Your task to perform on an android device: Open calendar and show me the fourth week of next month Image 0: 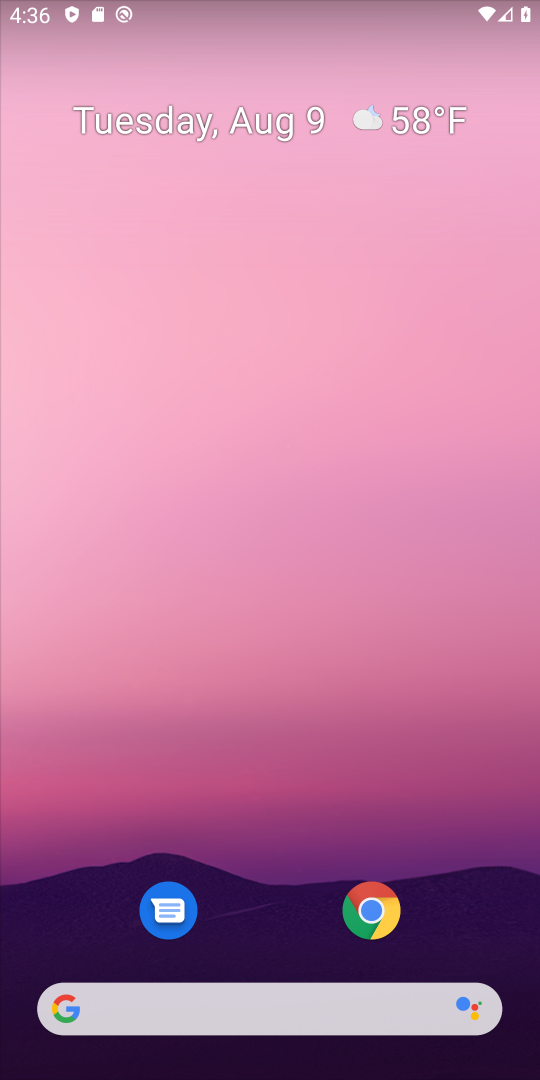
Step 0: drag from (219, 115) to (220, 363)
Your task to perform on an android device: Open calendar and show me the fourth week of next month Image 1: 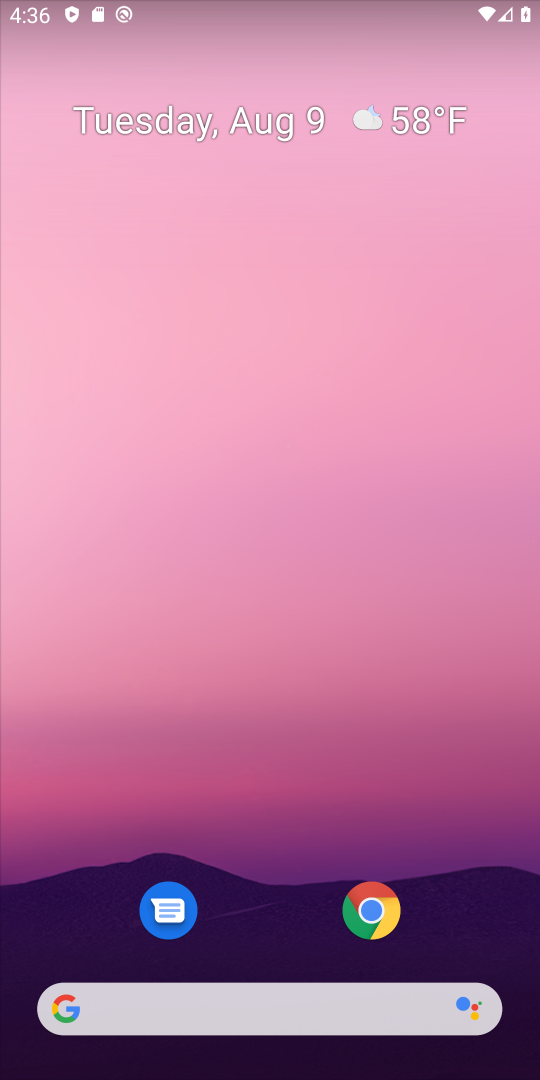
Step 1: drag from (276, 842) to (254, 254)
Your task to perform on an android device: Open calendar and show me the fourth week of next month Image 2: 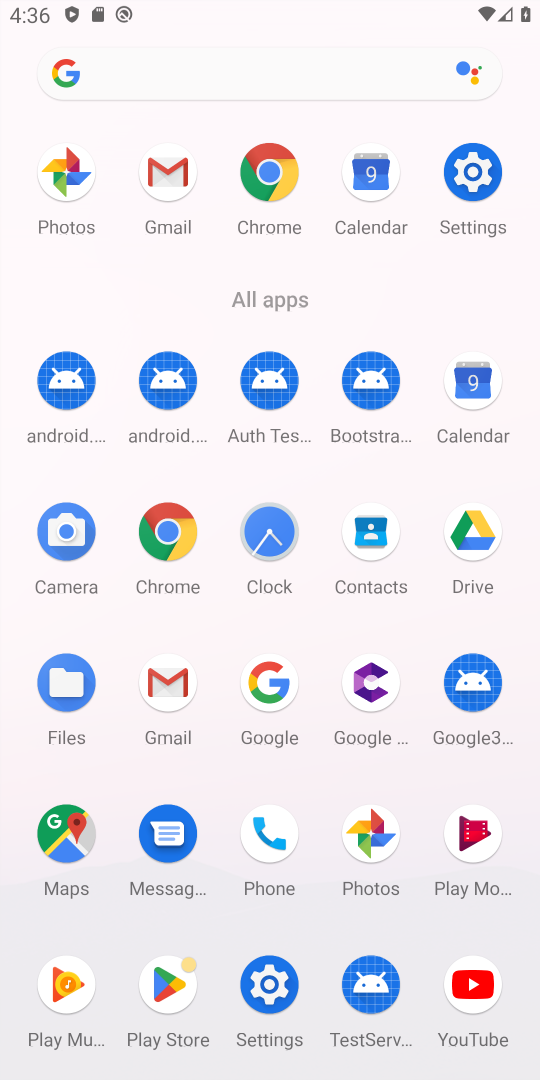
Step 2: click (472, 373)
Your task to perform on an android device: Open calendar and show me the fourth week of next month Image 3: 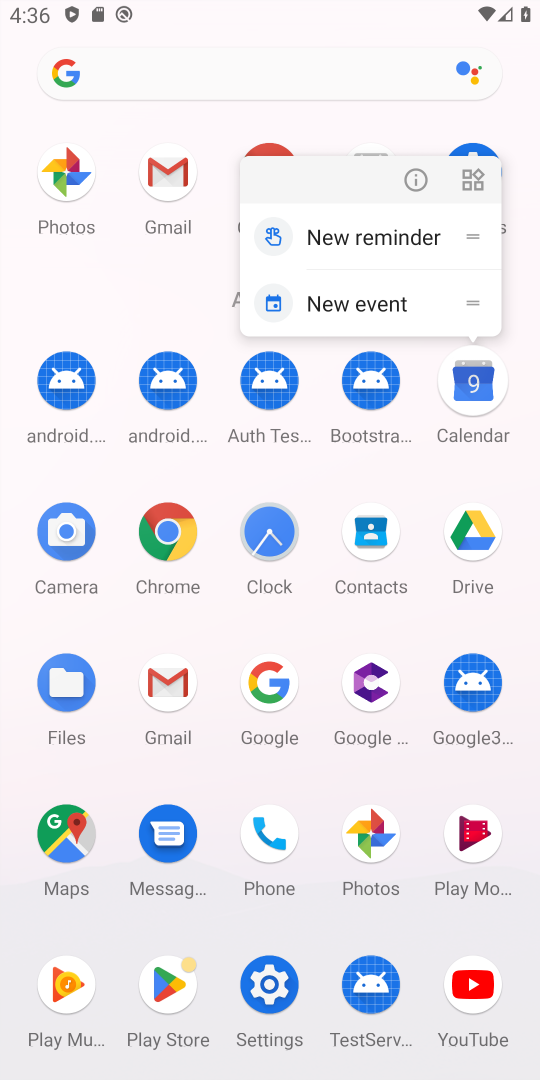
Step 3: click (476, 379)
Your task to perform on an android device: Open calendar and show me the fourth week of next month Image 4: 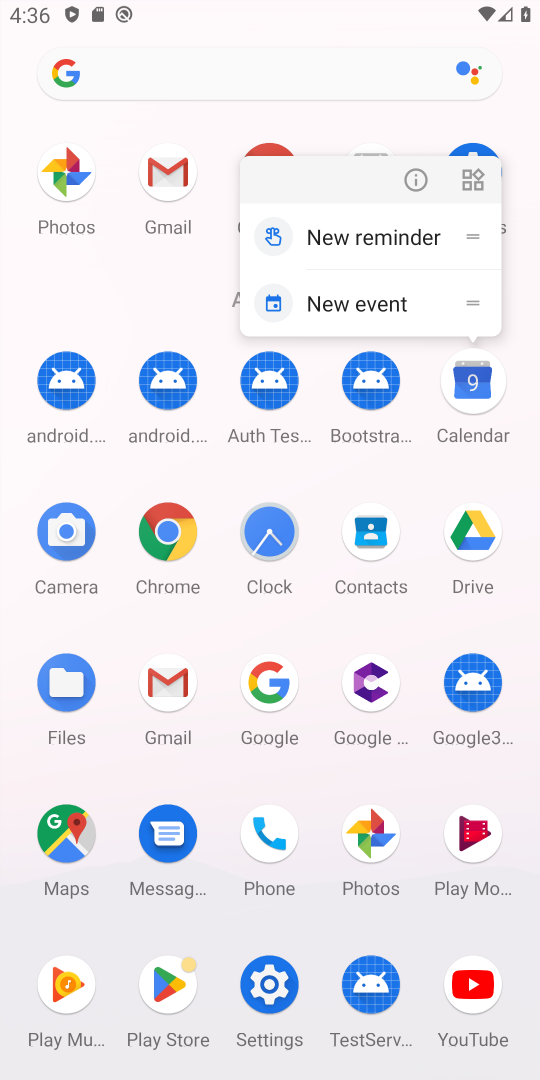
Step 4: click (476, 380)
Your task to perform on an android device: Open calendar and show me the fourth week of next month Image 5: 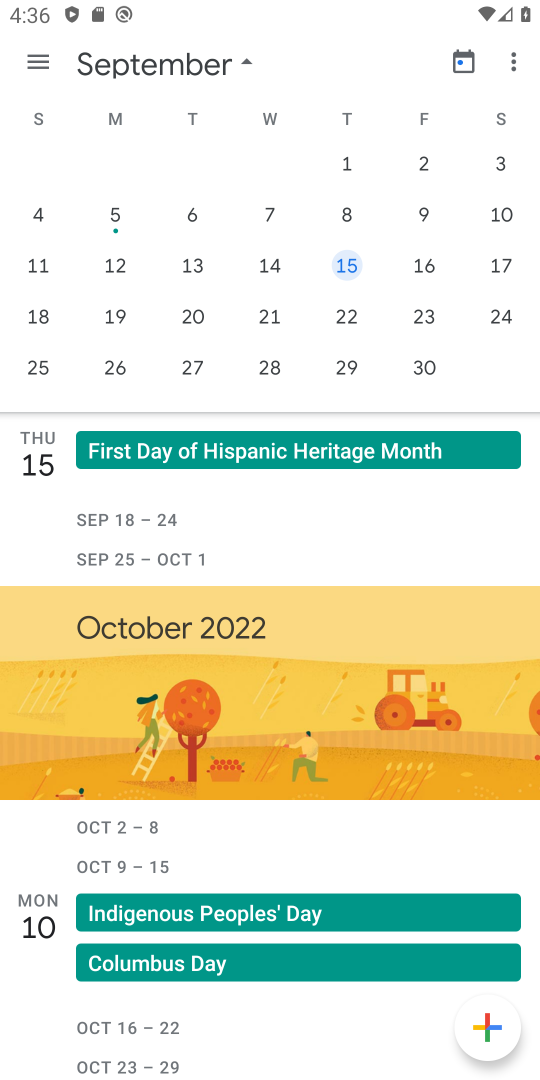
Step 5: click (348, 309)
Your task to perform on an android device: Open calendar and show me the fourth week of next month Image 6: 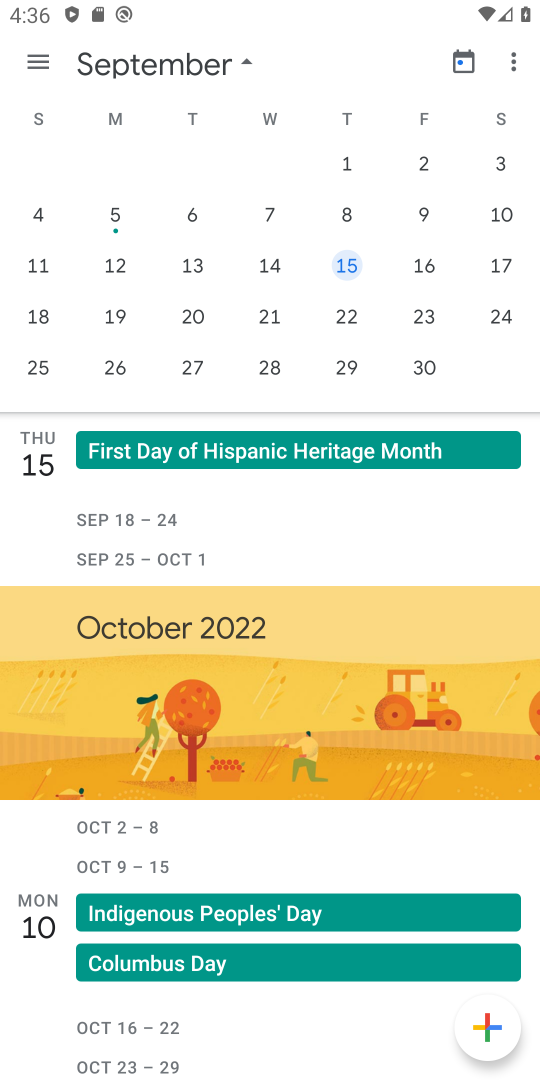
Step 6: click (352, 307)
Your task to perform on an android device: Open calendar and show me the fourth week of next month Image 7: 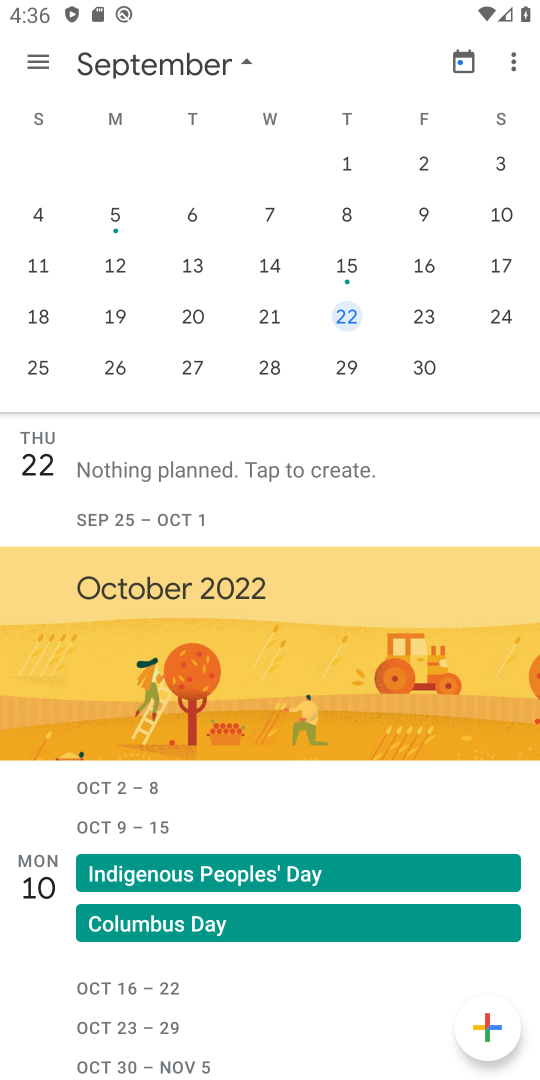
Step 7: click (352, 313)
Your task to perform on an android device: Open calendar and show me the fourth week of next month Image 8: 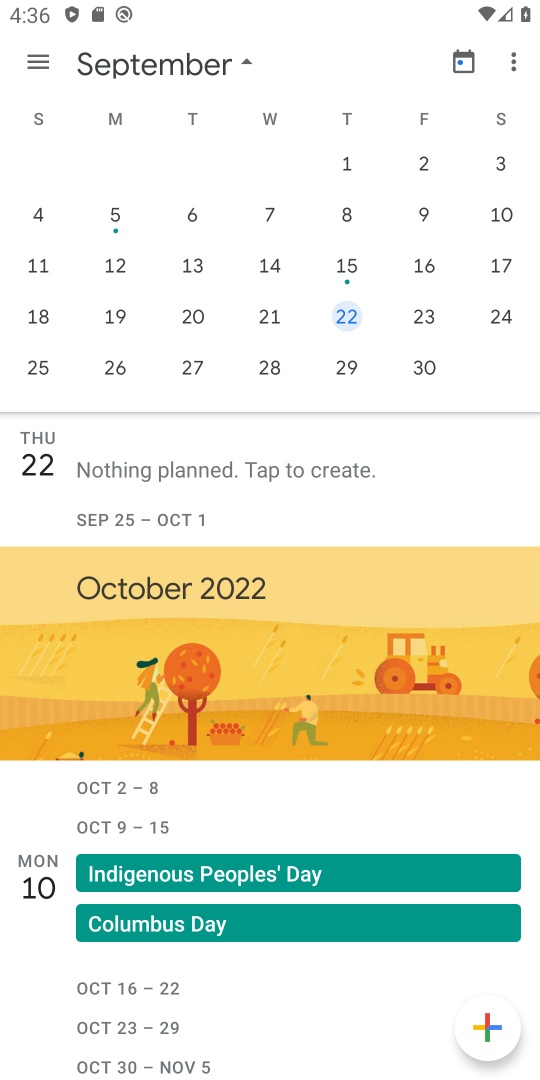
Step 8: task complete